Your task to perform on an android device: Open the stopwatch Image 0: 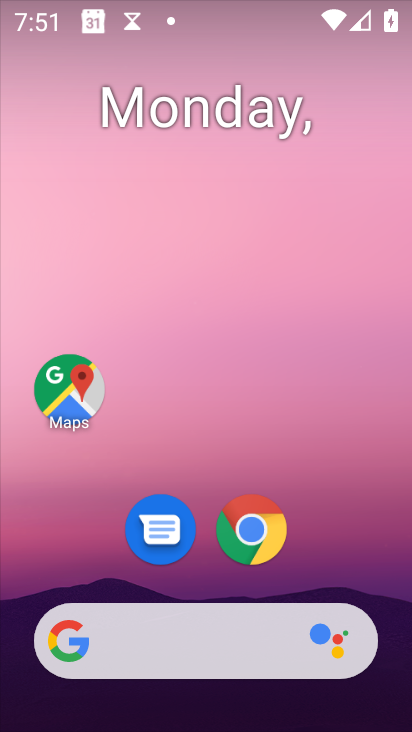
Step 0: drag from (134, 505) to (316, 175)
Your task to perform on an android device: Open the stopwatch Image 1: 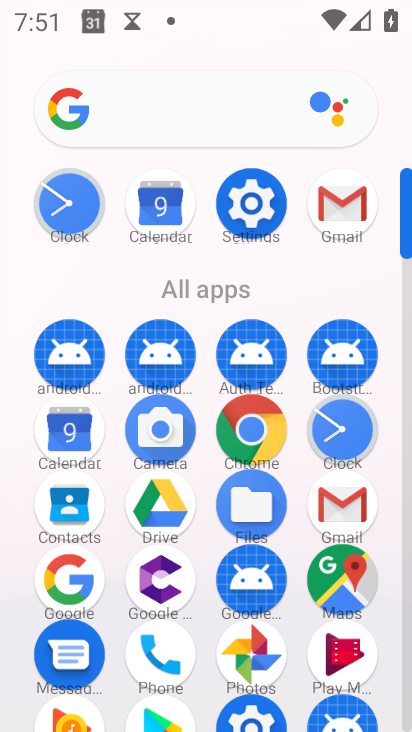
Step 1: click (332, 431)
Your task to perform on an android device: Open the stopwatch Image 2: 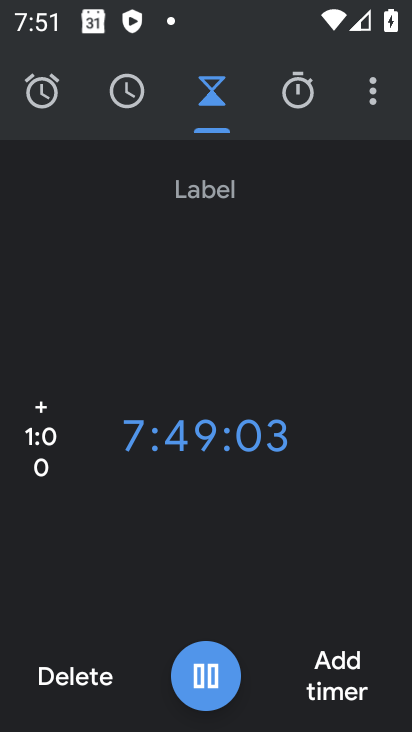
Step 2: click (308, 87)
Your task to perform on an android device: Open the stopwatch Image 3: 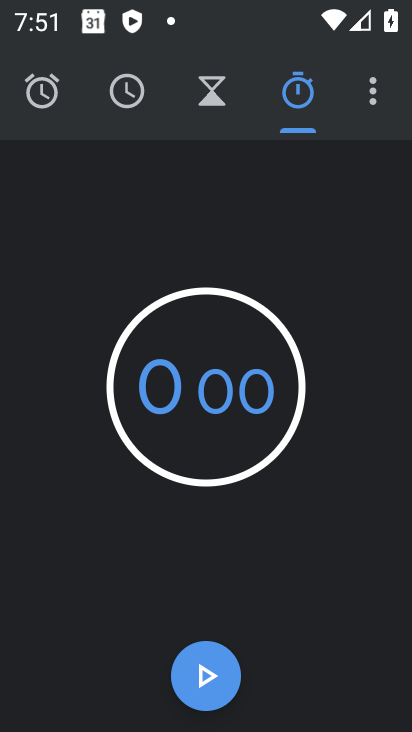
Step 3: task complete